Your task to perform on an android device: uninstall "Venmo" Image 0: 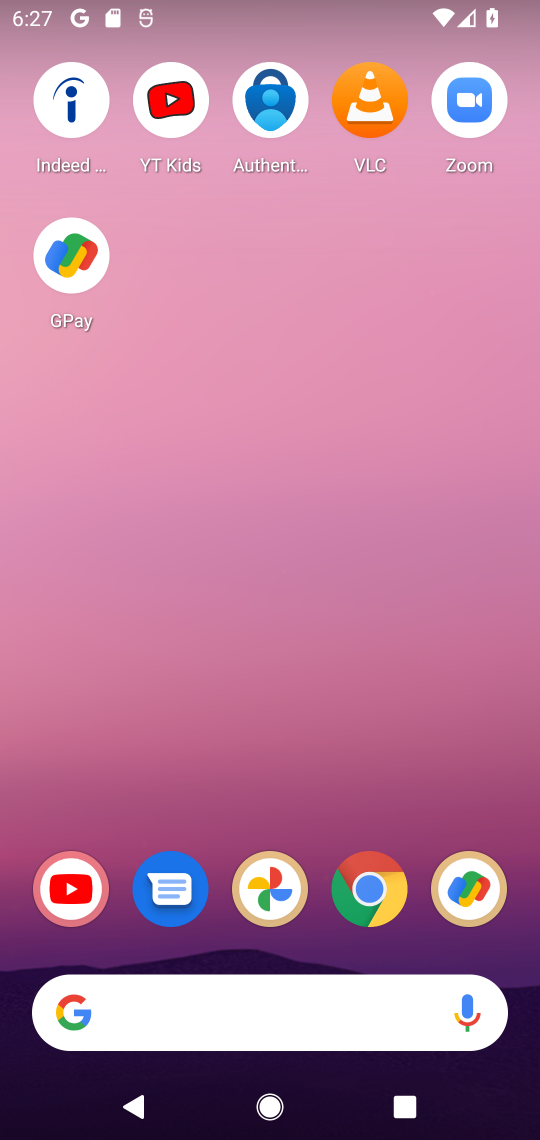
Step 0: press home button
Your task to perform on an android device: uninstall "Venmo" Image 1: 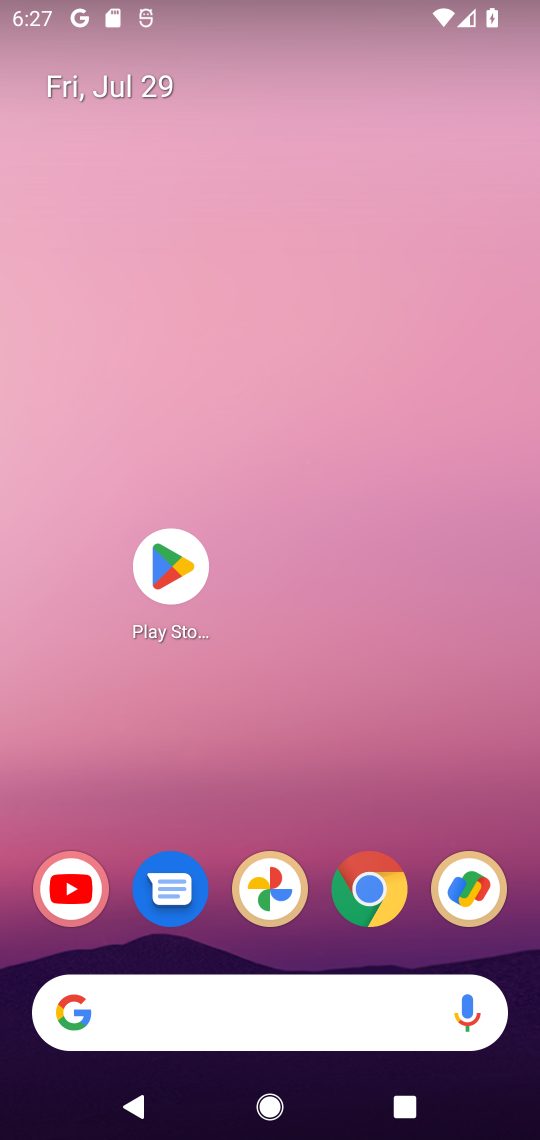
Step 1: click (182, 548)
Your task to perform on an android device: uninstall "Venmo" Image 2: 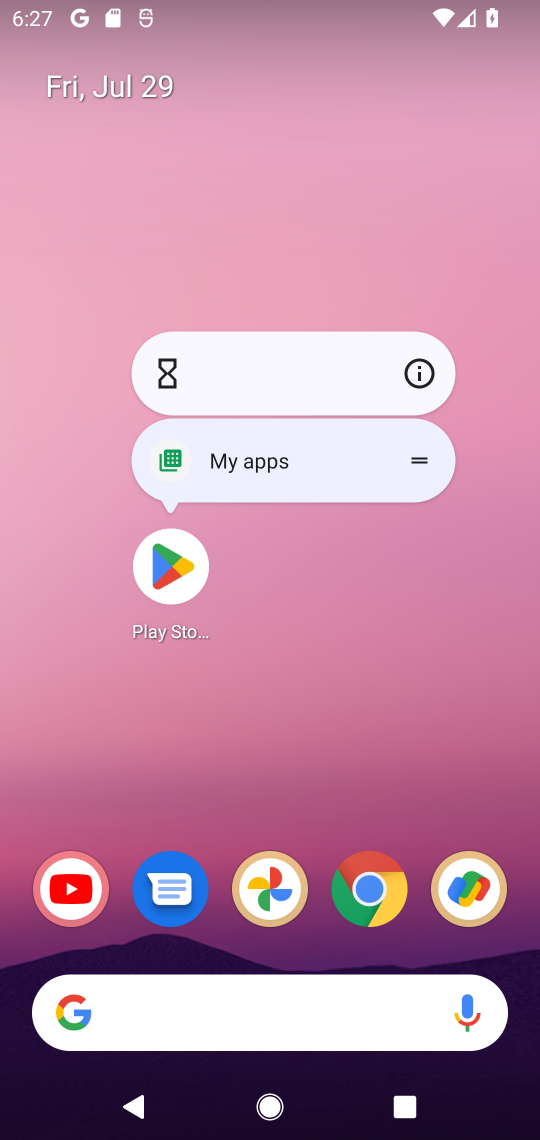
Step 2: click (172, 575)
Your task to perform on an android device: uninstall "Venmo" Image 3: 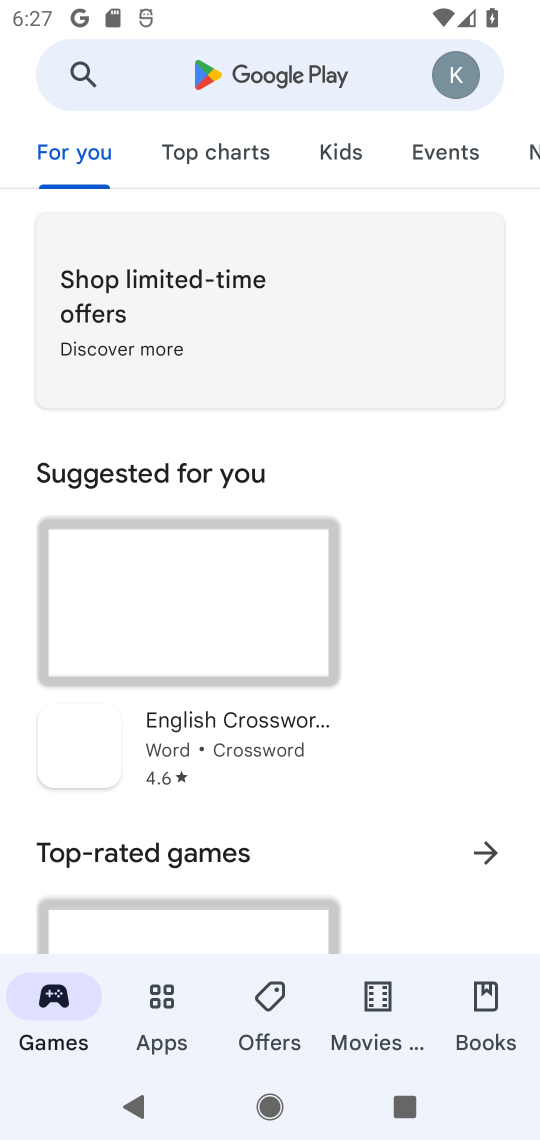
Step 3: click (322, 77)
Your task to perform on an android device: uninstall "Venmo" Image 4: 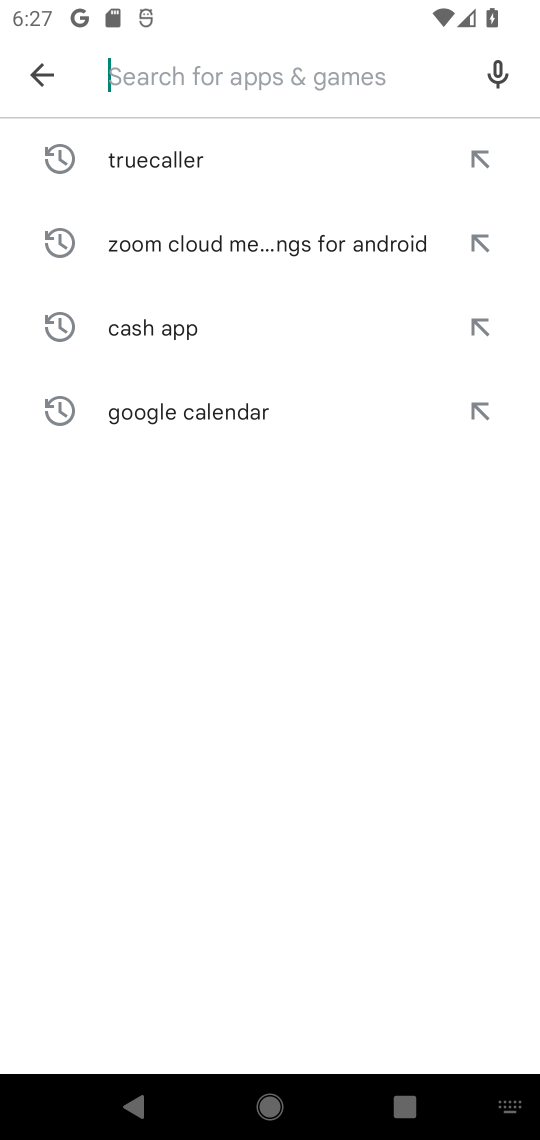
Step 4: type "Venmo"
Your task to perform on an android device: uninstall "Venmo" Image 5: 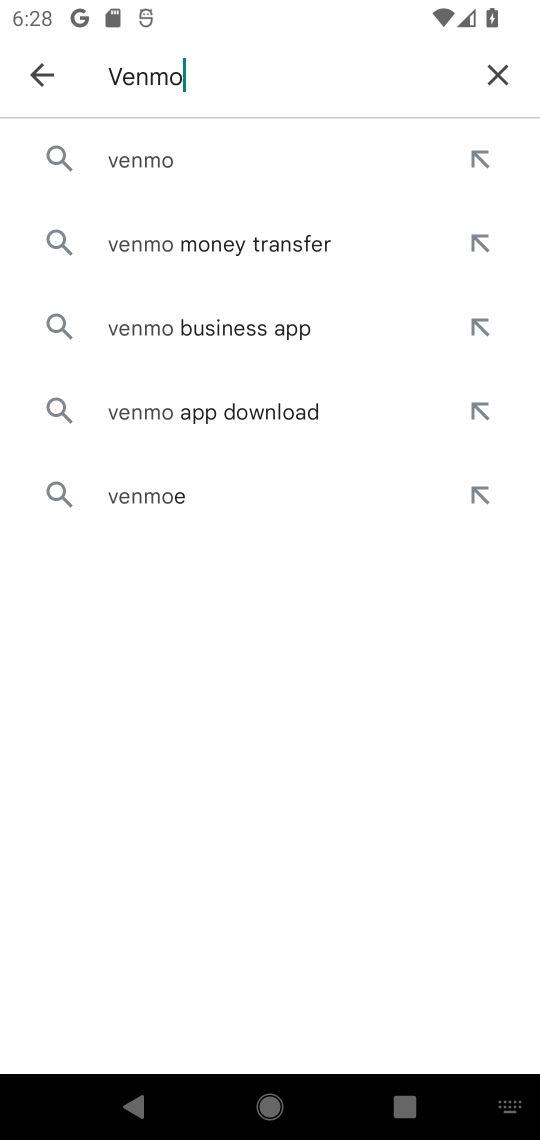
Step 5: click (120, 150)
Your task to perform on an android device: uninstall "Venmo" Image 6: 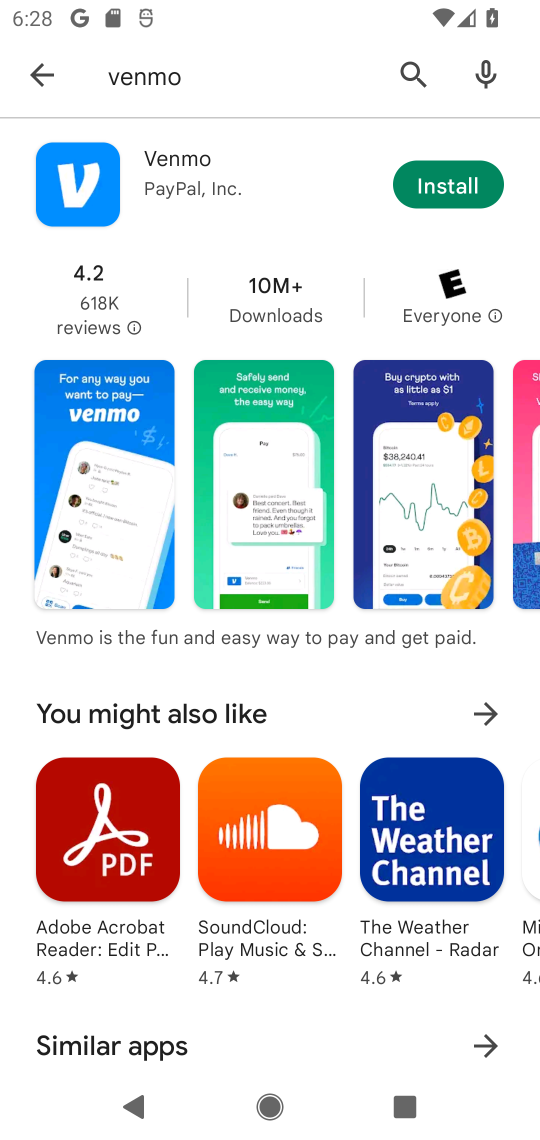
Step 6: task complete